Your task to perform on an android device: turn off smart reply in the gmail app Image 0: 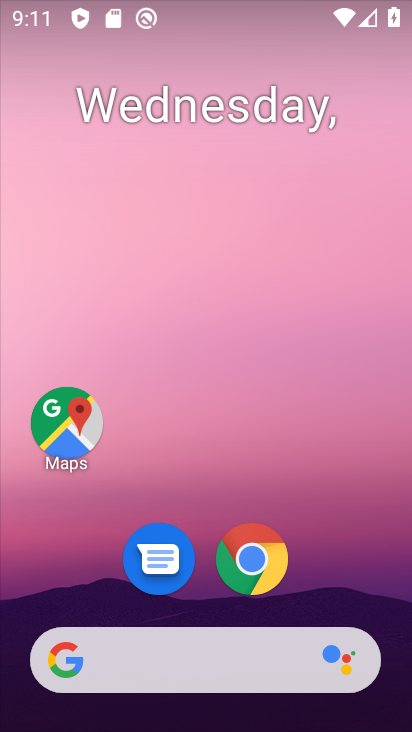
Step 0: drag from (322, 570) to (350, 178)
Your task to perform on an android device: turn off smart reply in the gmail app Image 1: 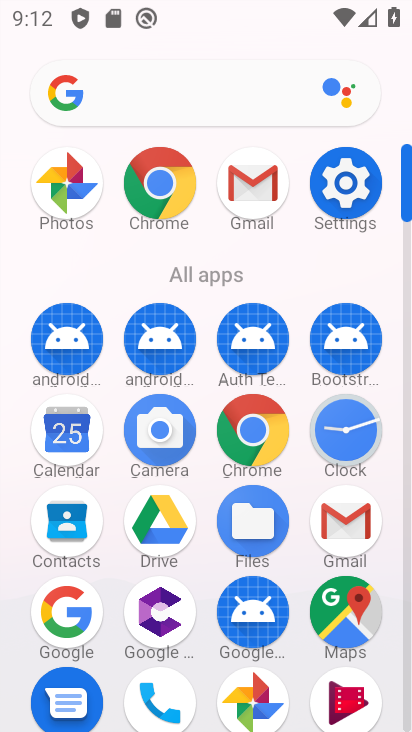
Step 1: click (336, 525)
Your task to perform on an android device: turn off smart reply in the gmail app Image 2: 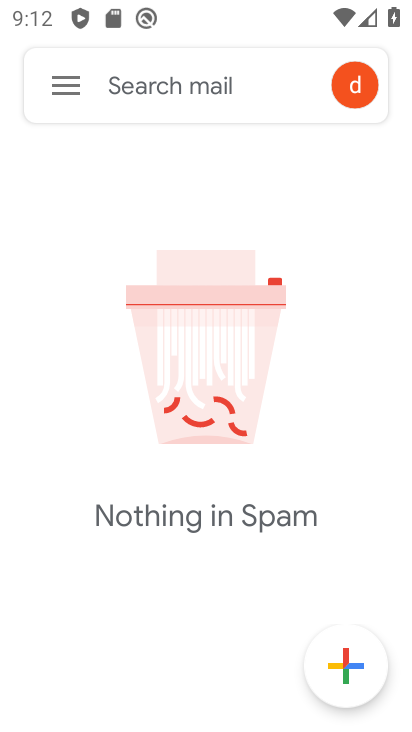
Step 2: click (57, 78)
Your task to perform on an android device: turn off smart reply in the gmail app Image 3: 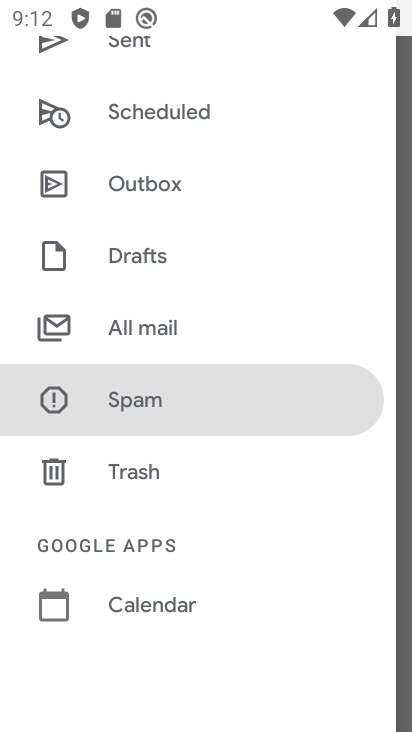
Step 3: drag from (230, 580) to (259, 154)
Your task to perform on an android device: turn off smart reply in the gmail app Image 4: 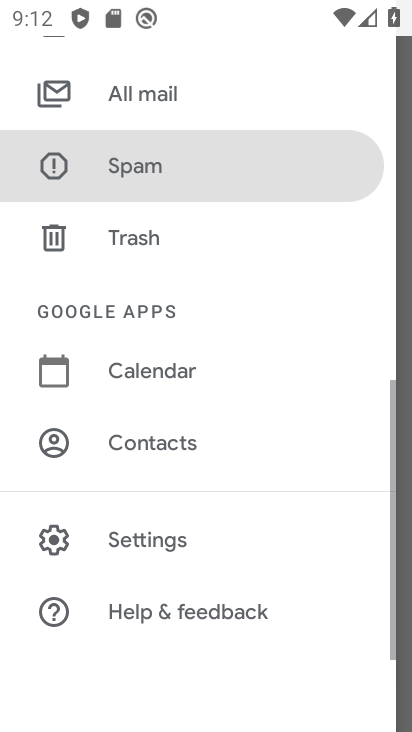
Step 4: click (172, 536)
Your task to perform on an android device: turn off smart reply in the gmail app Image 5: 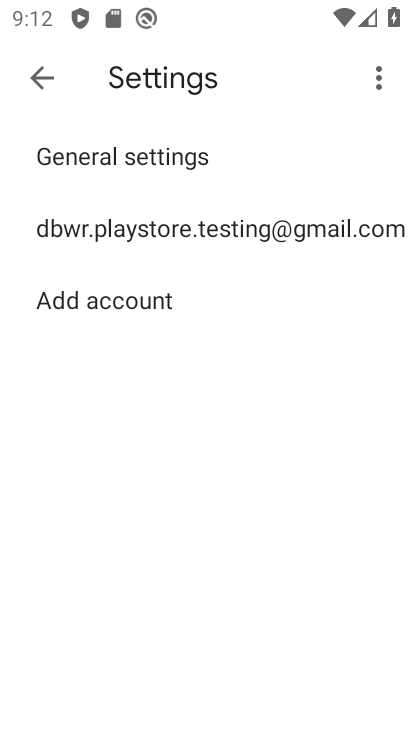
Step 5: click (260, 232)
Your task to perform on an android device: turn off smart reply in the gmail app Image 6: 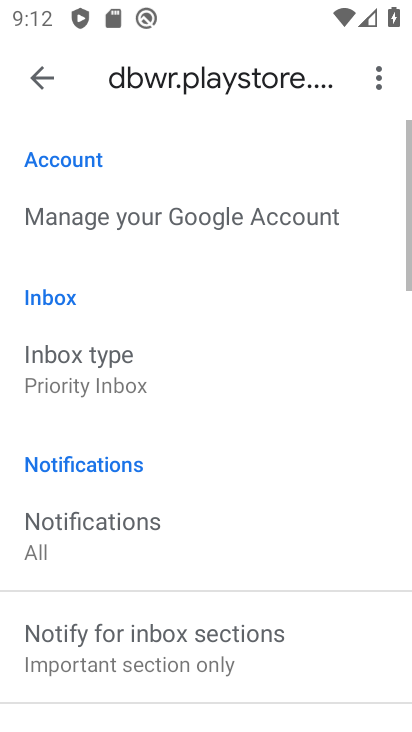
Step 6: drag from (277, 586) to (302, 250)
Your task to perform on an android device: turn off smart reply in the gmail app Image 7: 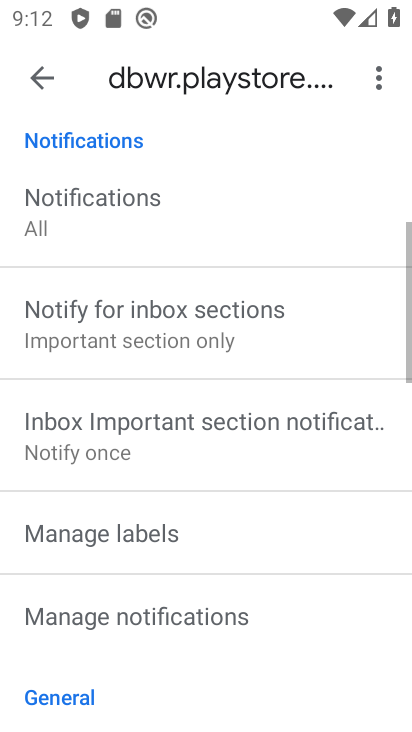
Step 7: drag from (248, 652) to (236, 296)
Your task to perform on an android device: turn off smart reply in the gmail app Image 8: 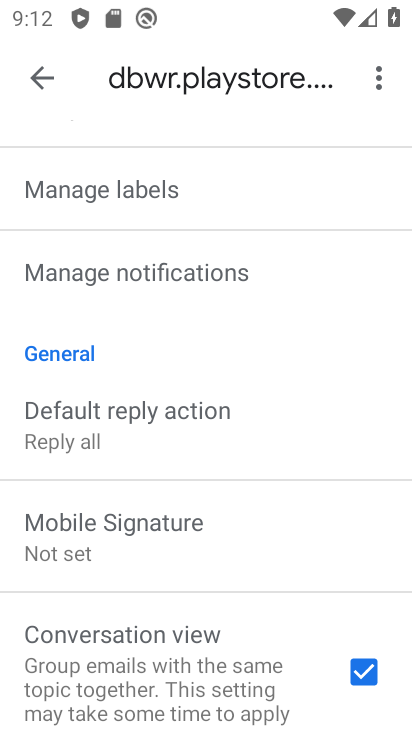
Step 8: drag from (216, 588) to (258, 213)
Your task to perform on an android device: turn off smart reply in the gmail app Image 9: 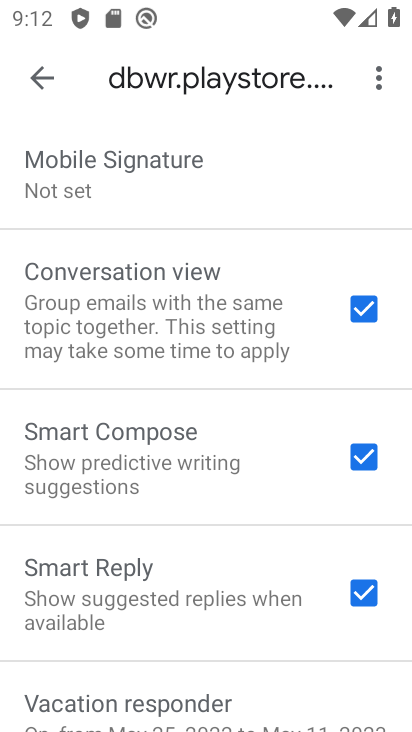
Step 9: click (368, 596)
Your task to perform on an android device: turn off smart reply in the gmail app Image 10: 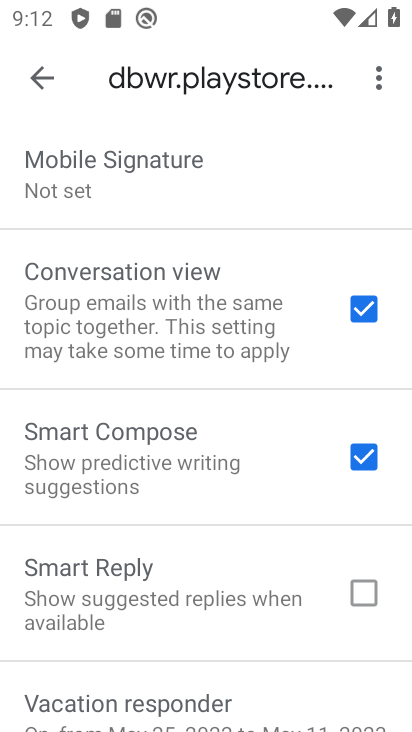
Step 10: task complete